Your task to perform on an android device: Toggle the flashlight Image 0: 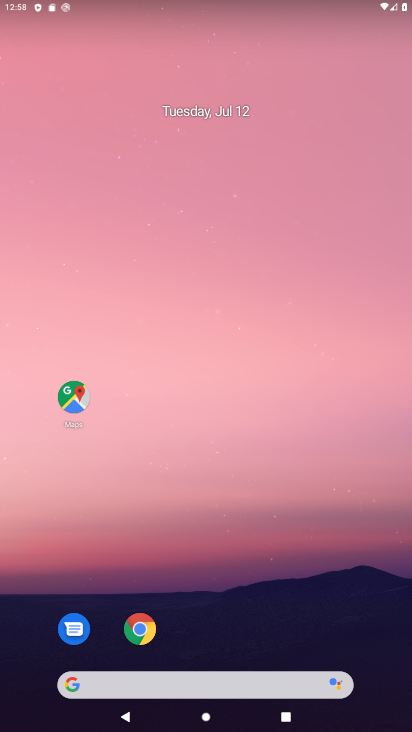
Step 0: drag from (210, 630) to (245, 134)
Your task to perform on an android device: Toggle the flashlight Image 1: 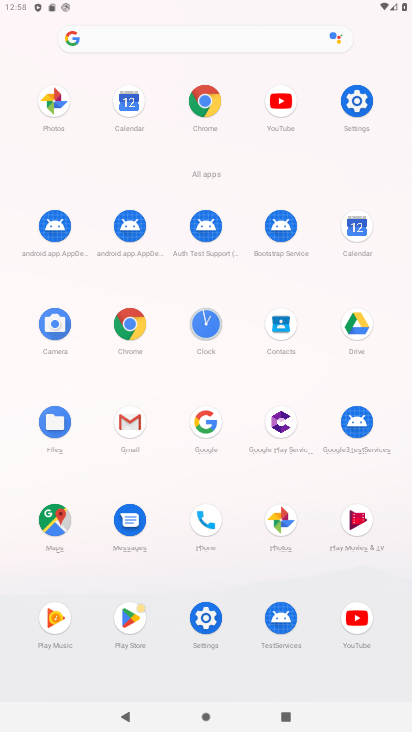
Step 1: click (353, 96)
Your task to perform on an android device: Toggle the flashlight Image 2: 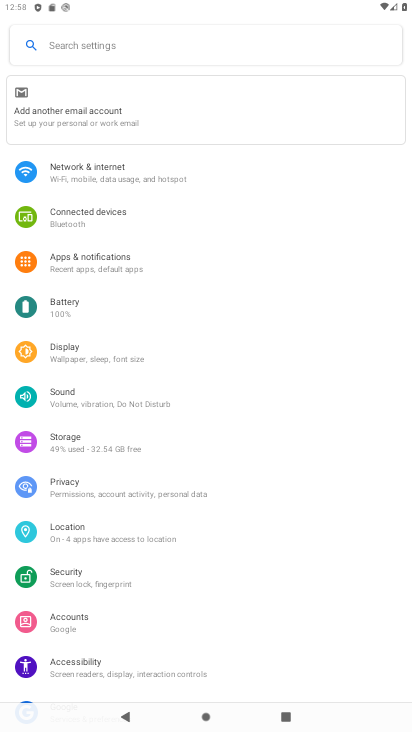
Step 2: click (102, 42)
Your task to perform on an android device: Toggle the flashlight Image 3: 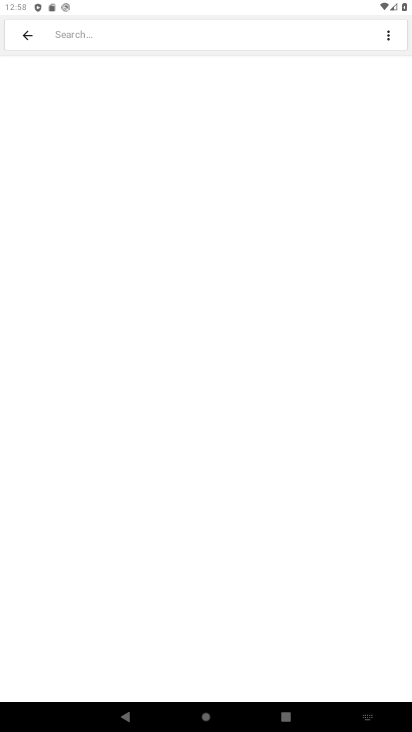
Step 3: type "flashlight"
Your task to perform on an android device: Toggle the flashlight Image 4: 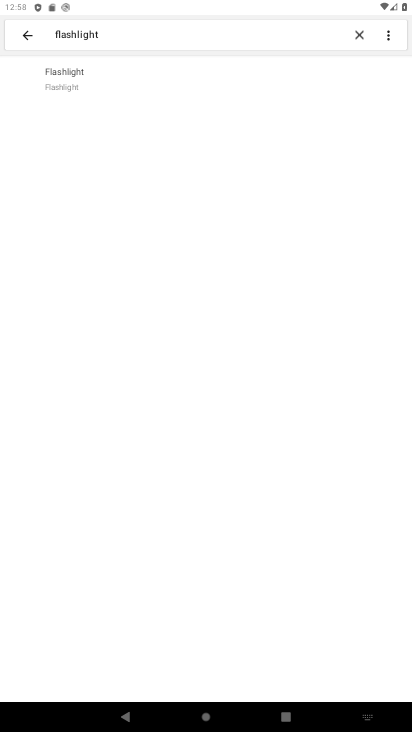
Step 4: click (87, 74)
Your task to perform on an android device: Toggle the flashlight Image 5: 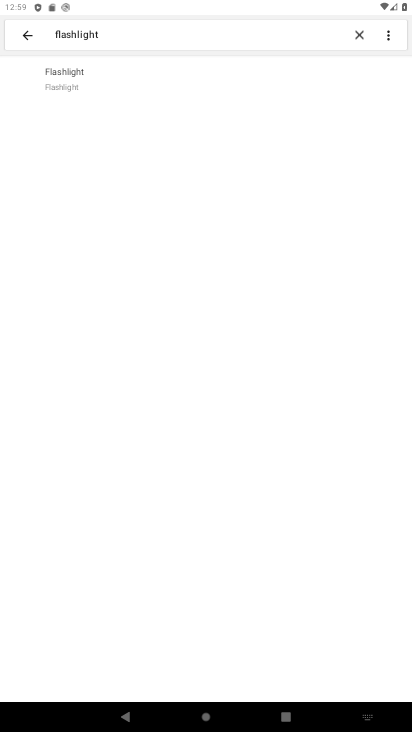
Step 5: task complete